Your task to perform on an android device: What's the US dollar exchange rate against the Canadian Dollar? Image 0: 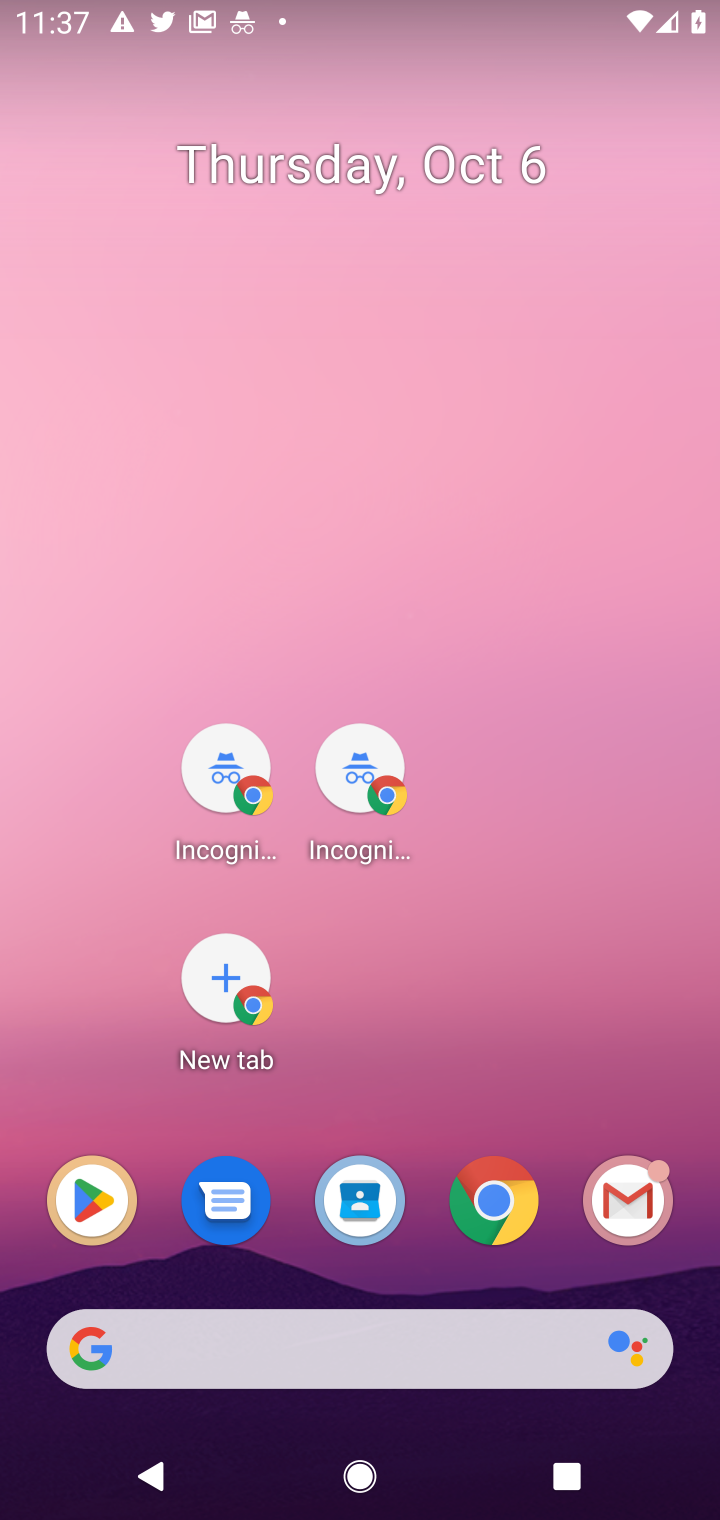
Step 0: click (486, 1199)
Your task to perform on an android device: What's the US dollar exchange rate against the Canadian Dollar? Image 1: 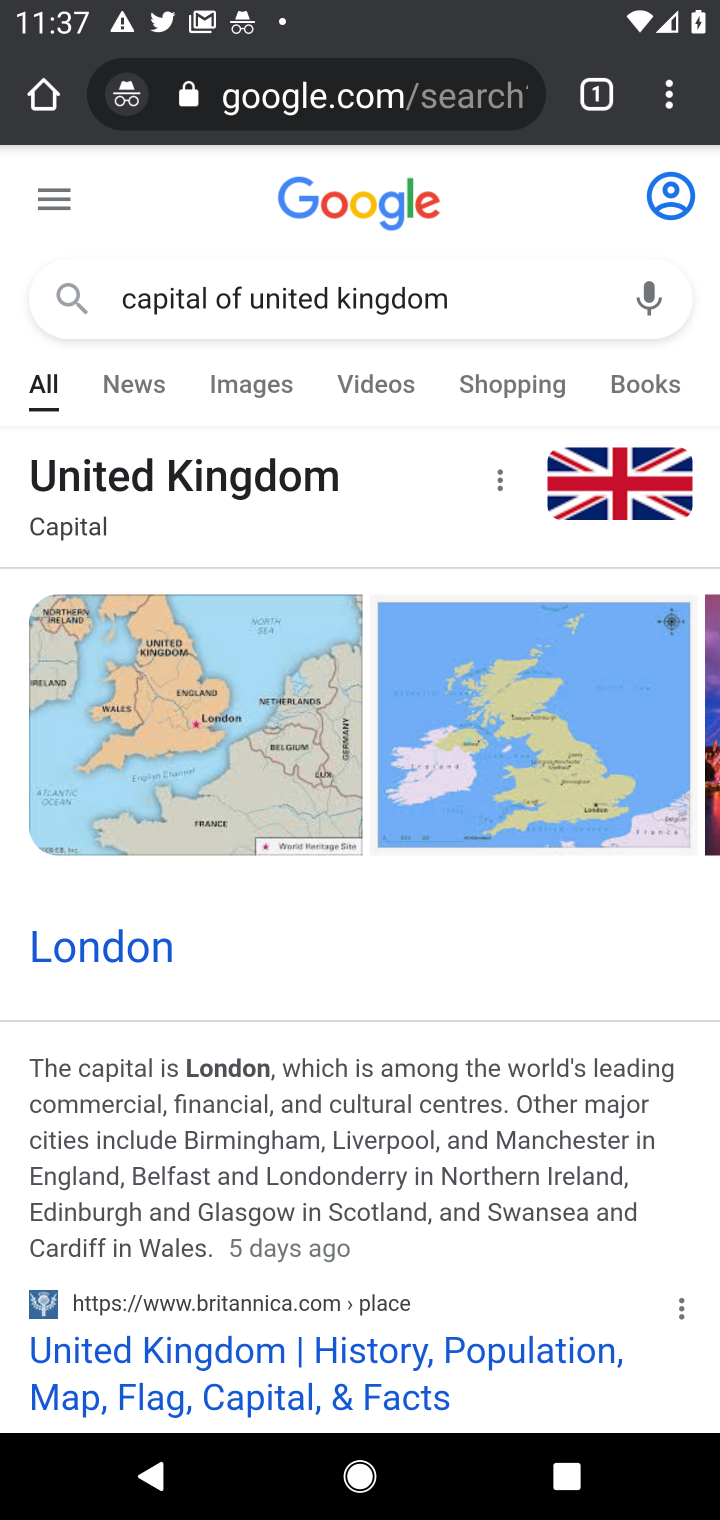
Step 1: click (448, 296)
Your task to perform on an android device: What's the US dollar exchange rate against the Canadian Dollar? Image 2: 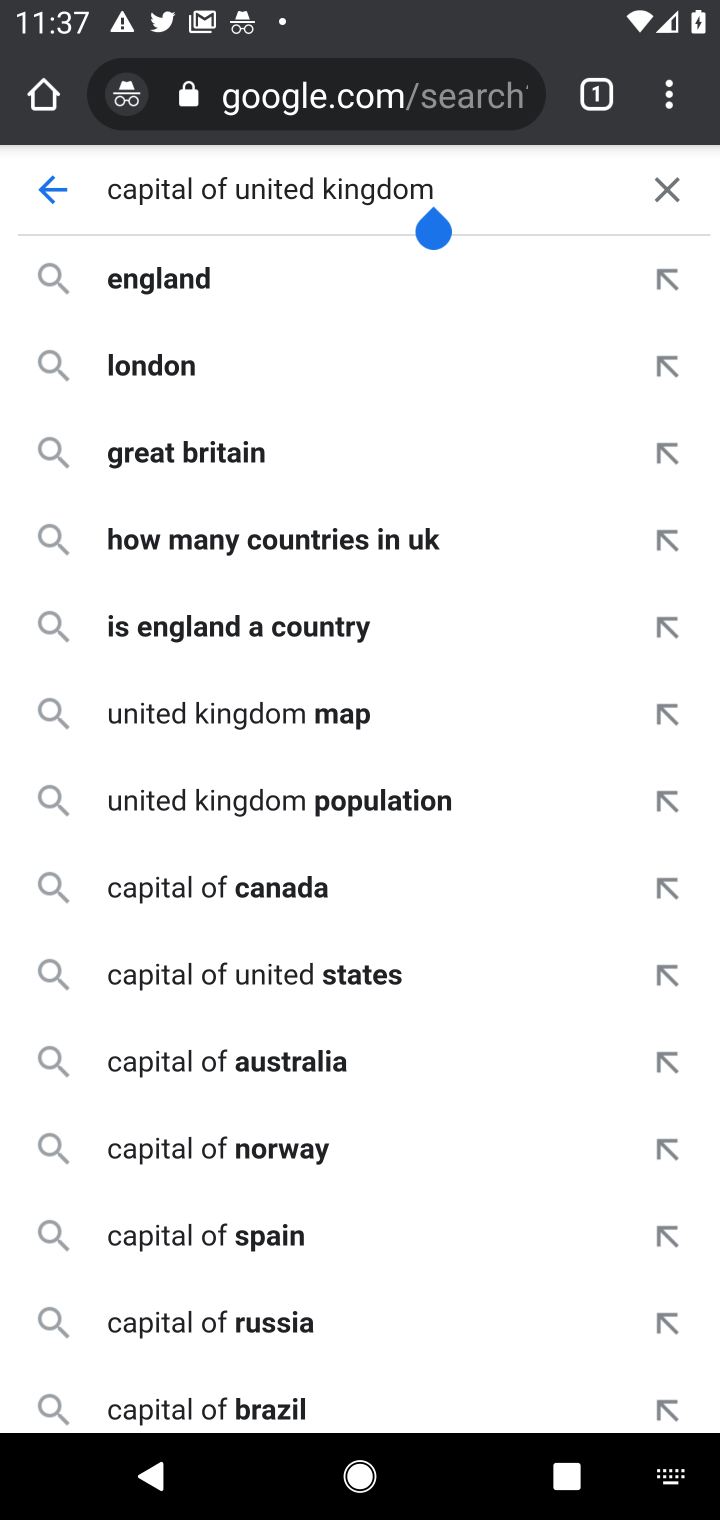
Step 2: click (663, 187)
Your task to perform on an android device: What's the US dollar exchange rate against the Canadian Dollar? Image 3: 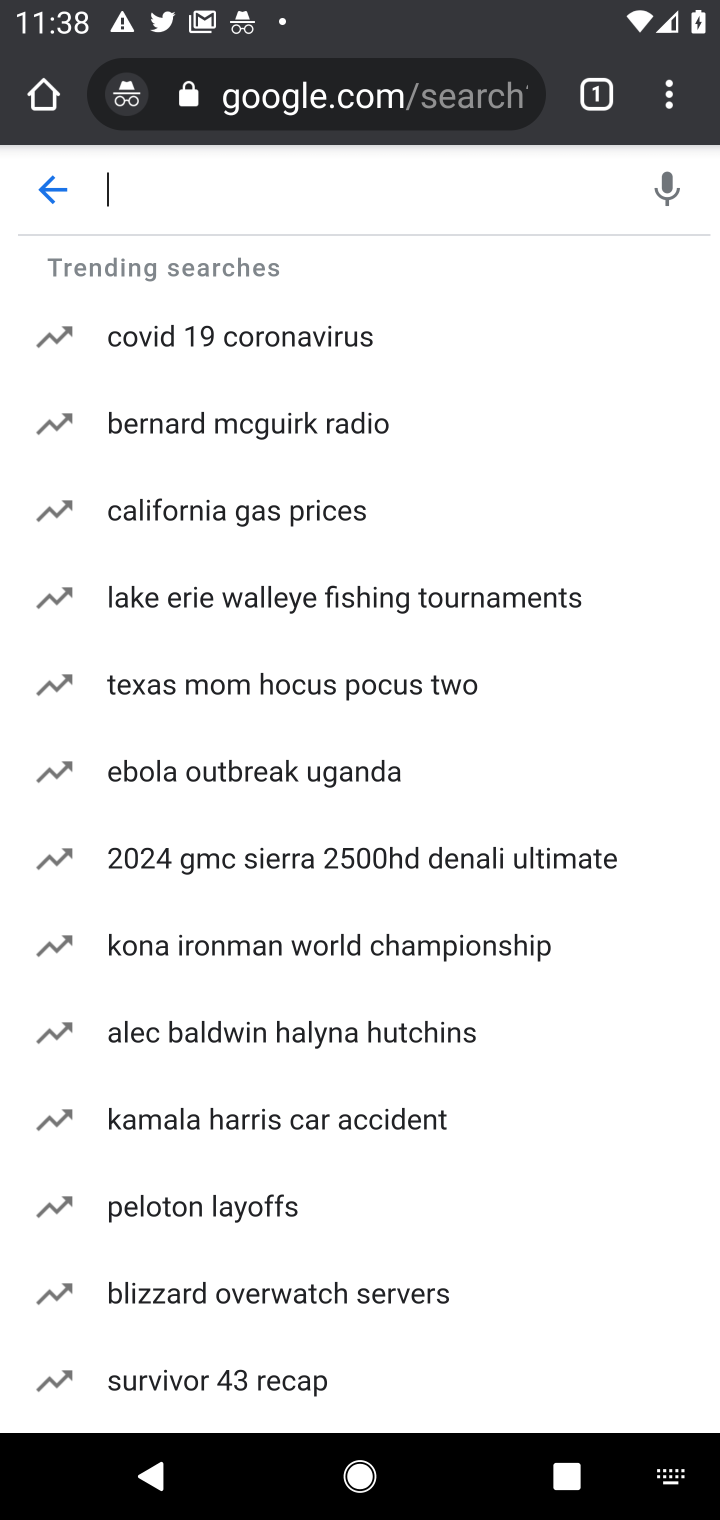
Step 3: type "us dollar exchange rate against the canadian dollar"
Your task to perform on an android device: What's the US dollar exchange rate against the Canadian Dollar? Image 4: 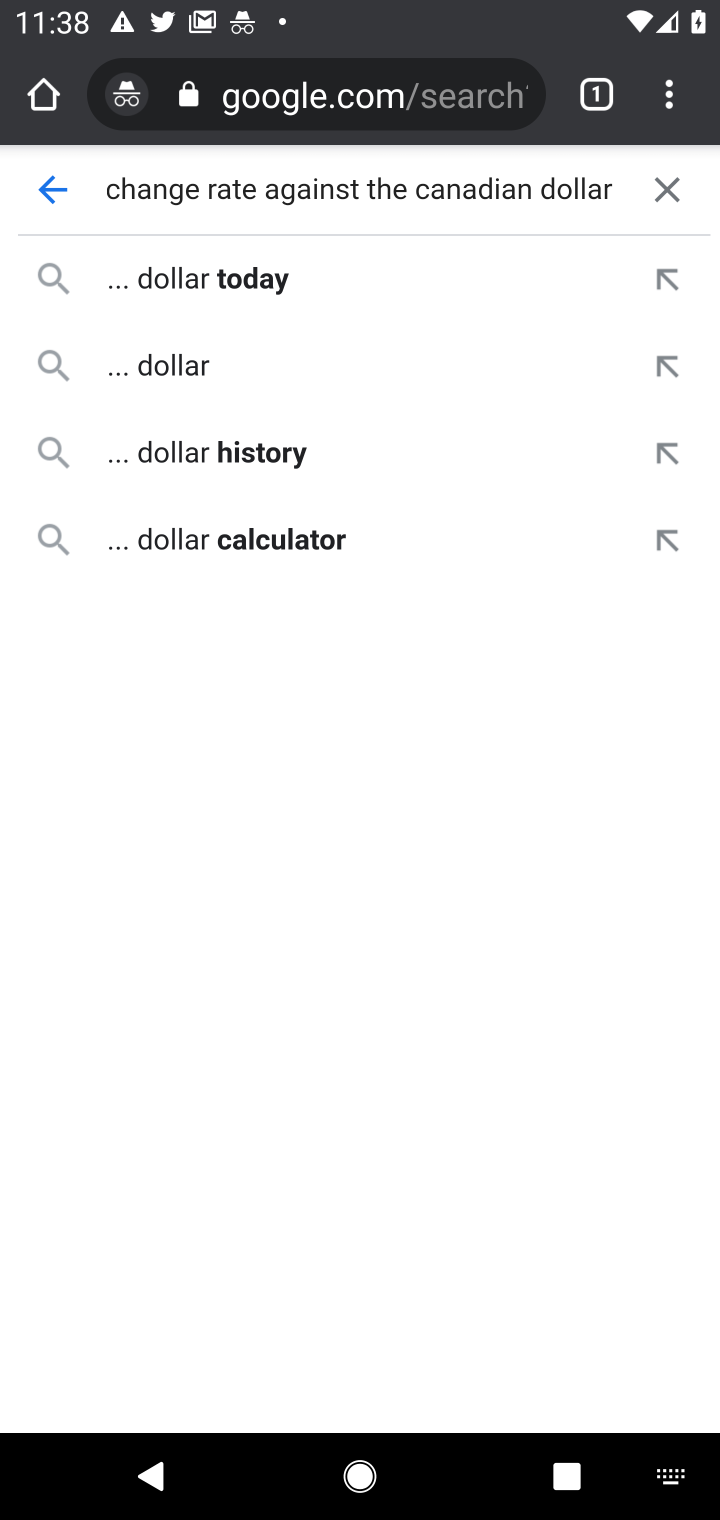
Step 4: click (266, 274)
Your task to perform on an android device: What's the US dollar exchange rate against the Canadian Dollar? Image 5: 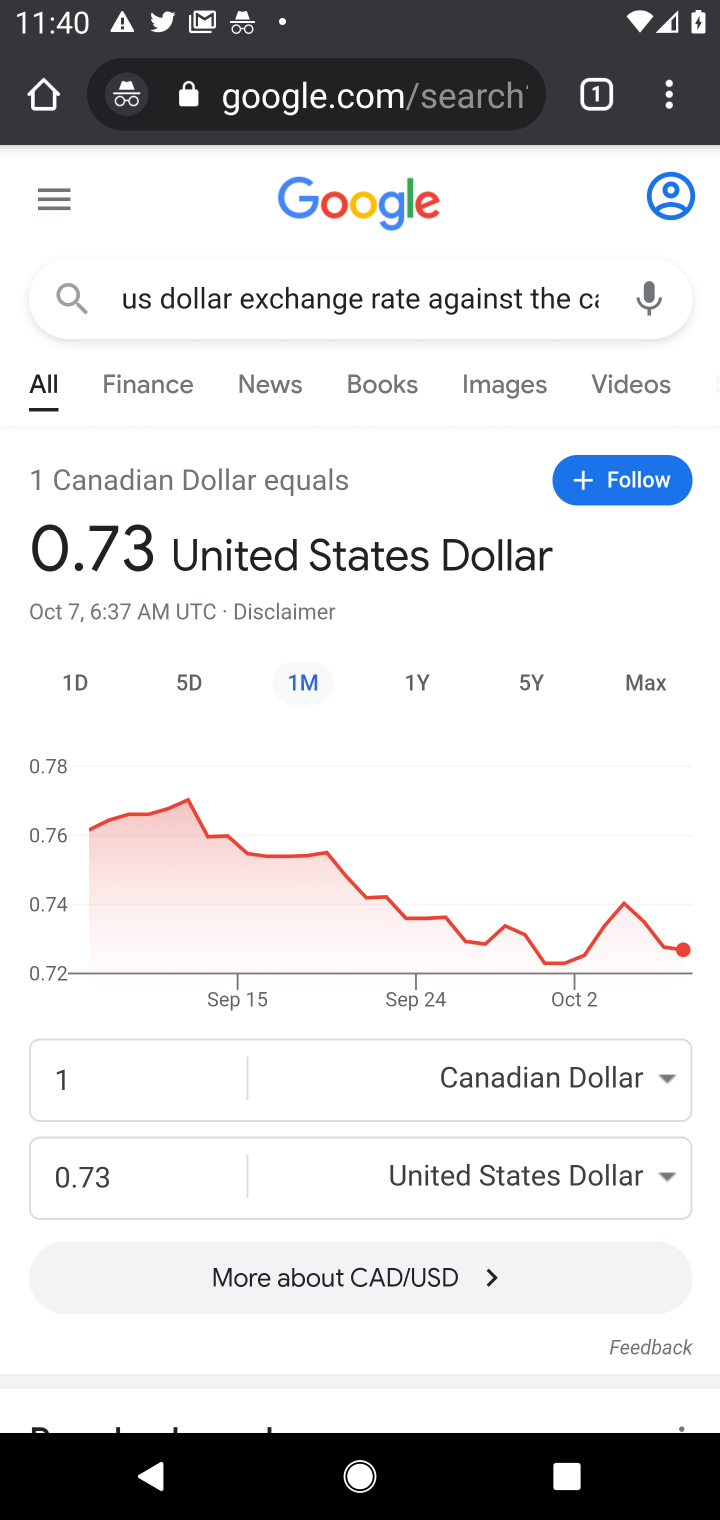
Step 5: task complete